Your task to perform on an android device: turn notification dots on Image 0: 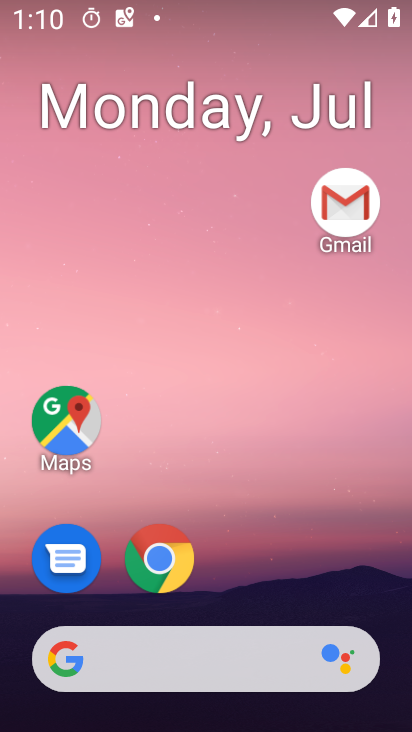
Step 0: drag from (360, 540) to (373, 119)
Your task to perform on an android device: turn notification dots on Image 1: 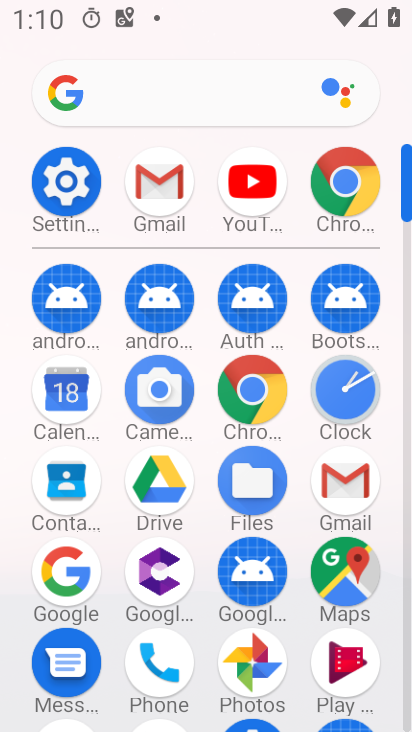
Step 1: click (77, 184)
Your task to perform on an android device: turn notification dots on Image 2: 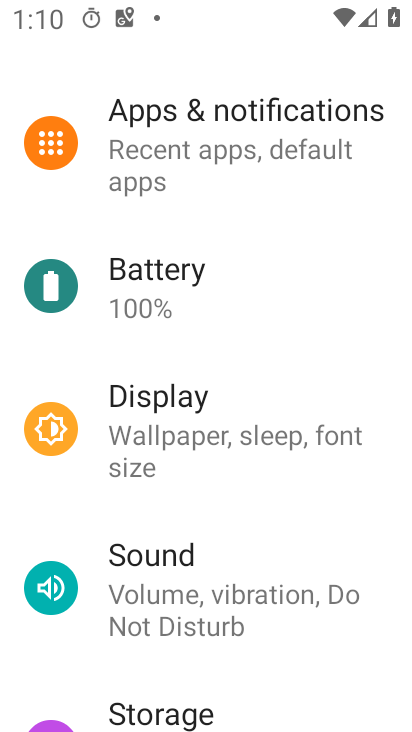
Step 2: click (157, 153)
Your task to perform on an android device: turn notification dots on Image 3: 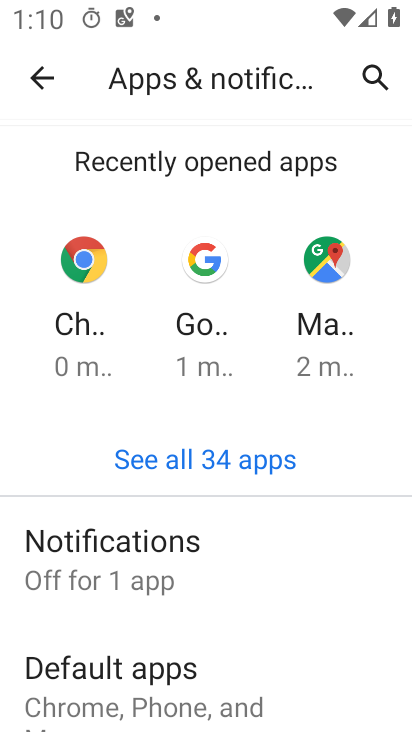
Step 3: click (159, 549)
Your task to perform on an android device: turn notification dots on Image 4: 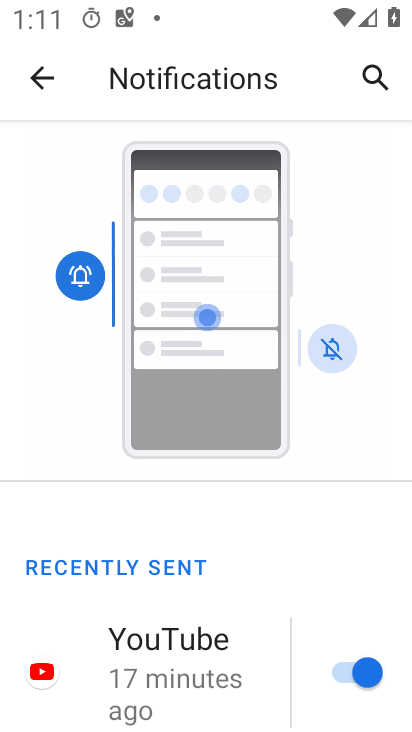
Step 4: drag from (340, 590) to (348, 494)
Your task to perform on an android device: turn notification dots on Image 5: 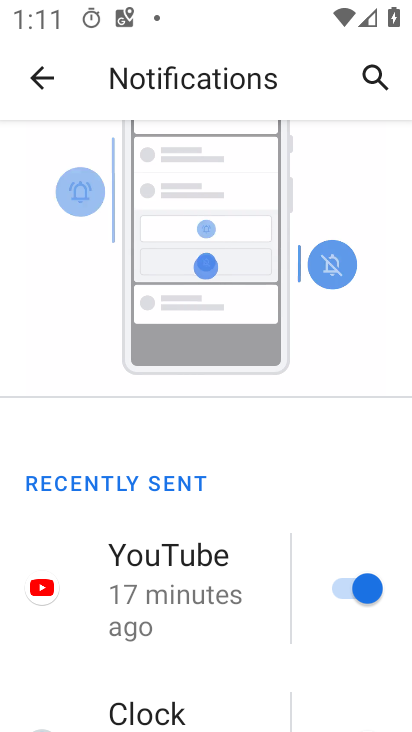
Step 5: drag from (232, 642) to (253, 537)
Your task to perform on an android device: turn notification dots on Image 6: 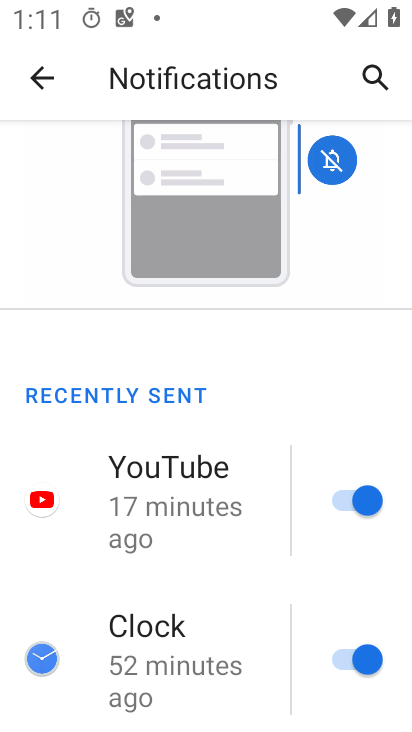
Step 6: drag from (256, 627) to (266, 471)
Your task to perform on an android device: turn notification dots on Image 7: 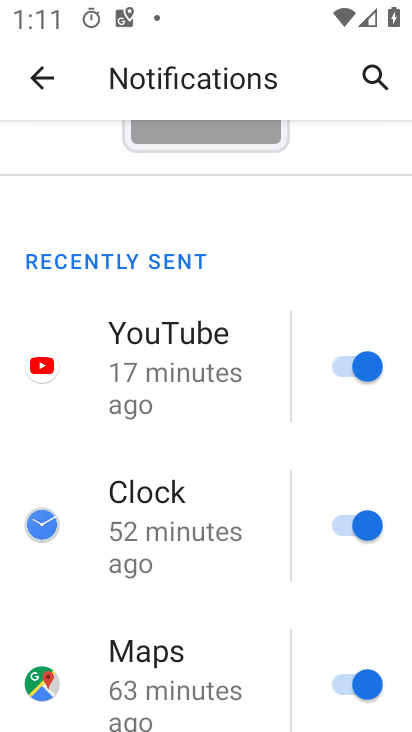
Step 7: drag from (252, 596) to (259, 474)
Your task to perform on an android device: turn notification dots on Image 8: 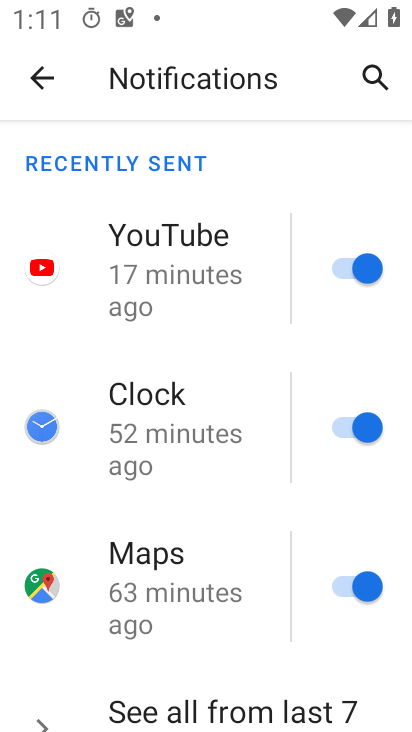
Step 8: drag from (238, 640) to (244, 525)
Your task to perform on an android device: turn notification dots on Image 9: 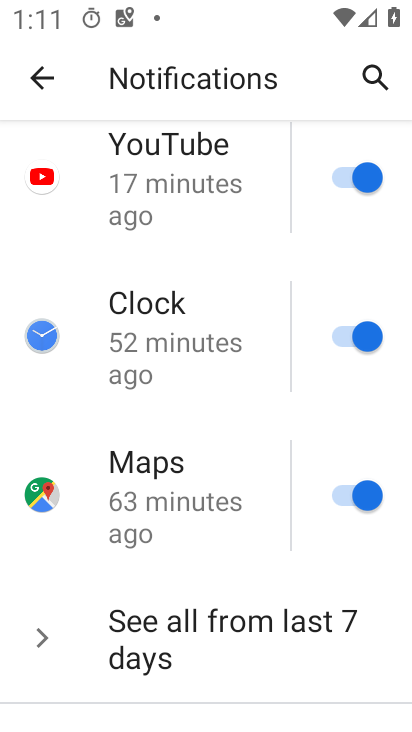
Step 9: drag from (239, 663) to (242, 516)
Your task to perform on an android device: turn notification dots on Image 10: 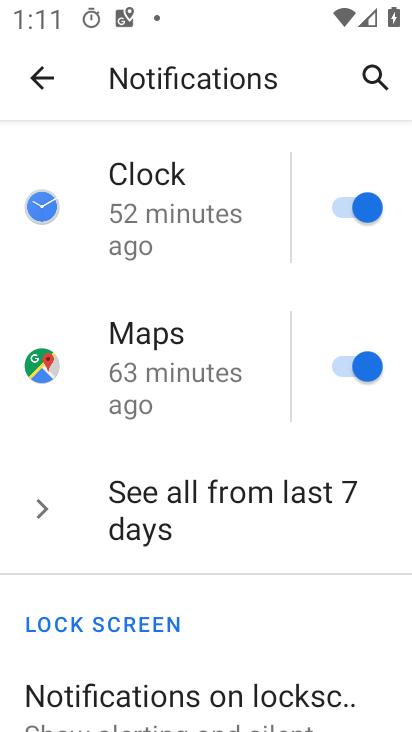
Step 10: drag from (240, 598) to (250, 484)
Your task to perform on an android device: turn notification dots on Image 11: 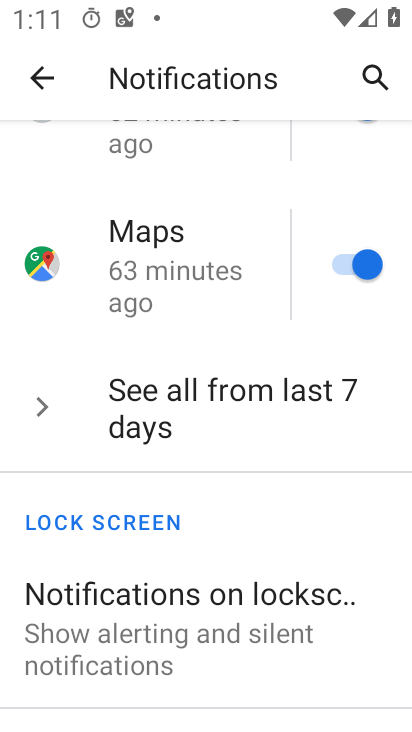
Step 11: drag from (252, 623) to (254, 499)
Your task to perform on an android device: turn notification dots on Image 12: 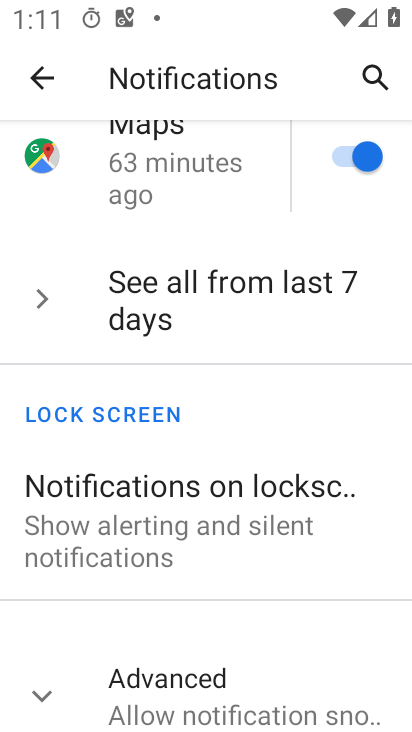
Step 12: drag from (237, 614) to (237, 488)
Your task to perform on an android device: turn notification dots on Image 13: 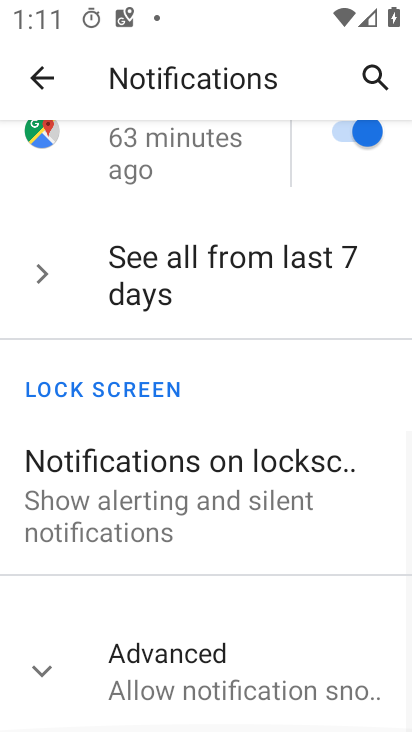
Step 13: click (228, 642)
Your task to perform on an android device: turn notification dots on Image 14: 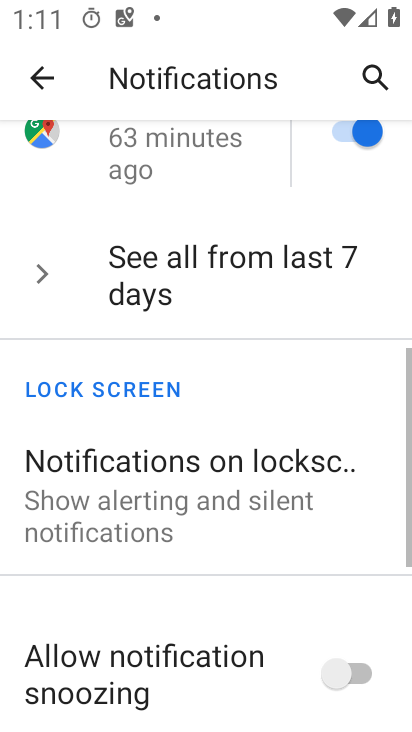
Step 14: drag from (239, 637) to (254, 542)
Your task to perform on an android device: turn notification dots on Image 15: 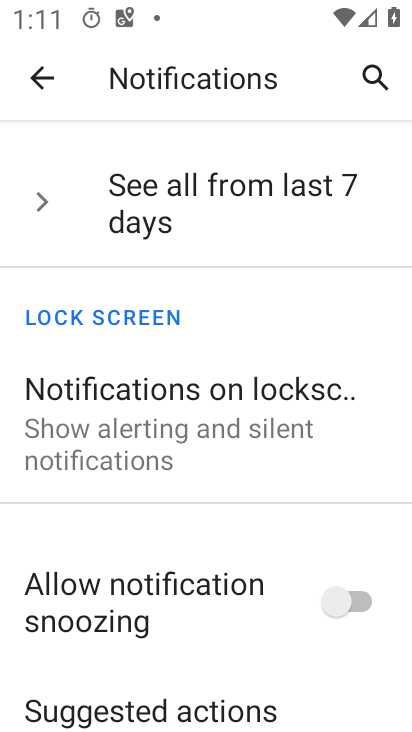
Step 15: drag from (261, 646) to (267, 538)
Your task to perform on an android device: turn notification dots on Image 16: 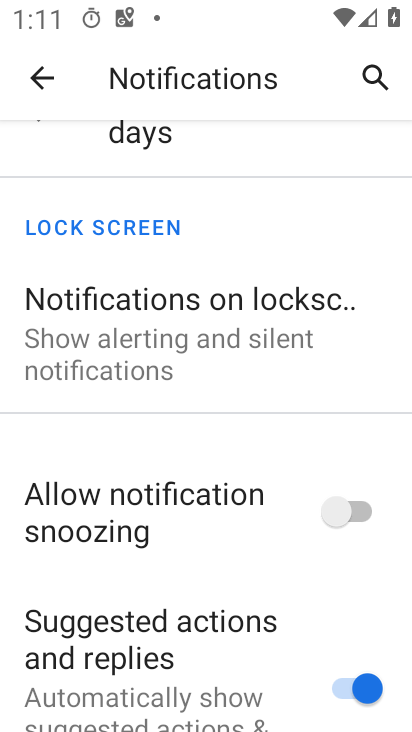
Step 16: drag from (265, 670) to (278, 519)
Your task to perform on an android device: turn notification dots on Image 17: 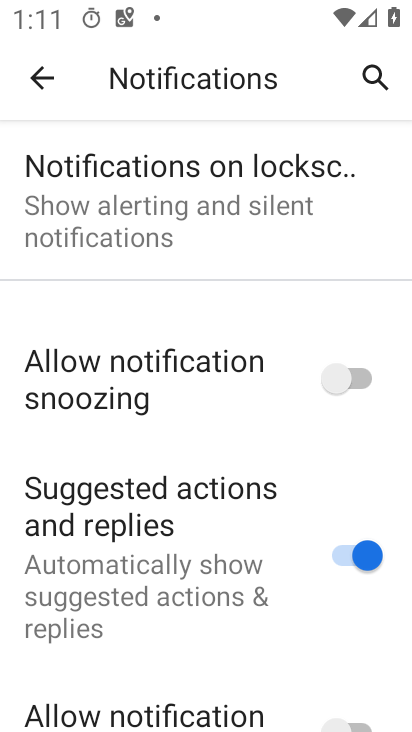
Step 17: drag from (294, 613) to (300, 501)
Your task to perform on an android device: turn notification dots on Image 18: 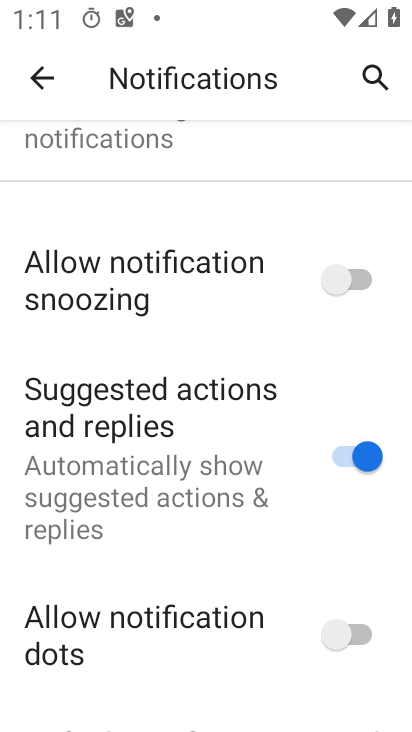
Step 18: drag from (300, 650) to (298, 491)
Your task to perform on an android device: turn notification dots on Image 19: 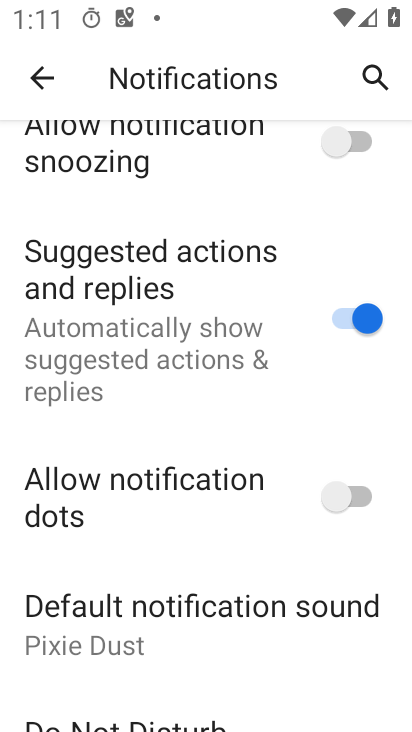
Step 19: click (322, 496)
Your task to perform on an android device: turn notification dots on Image 20: 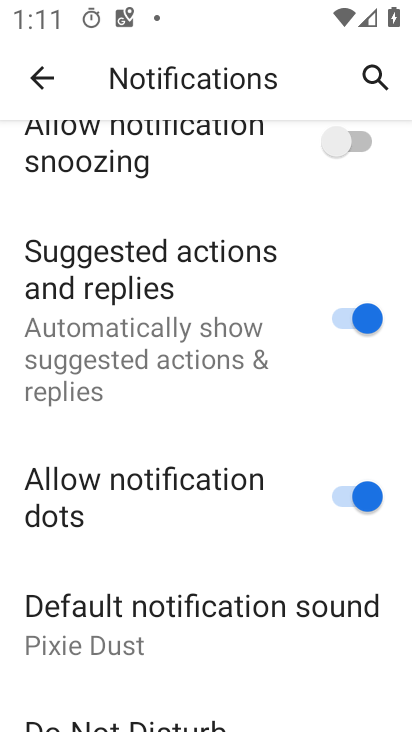
Step 20: task complete